Your task to perform on an android device: See recent photos Image 0: 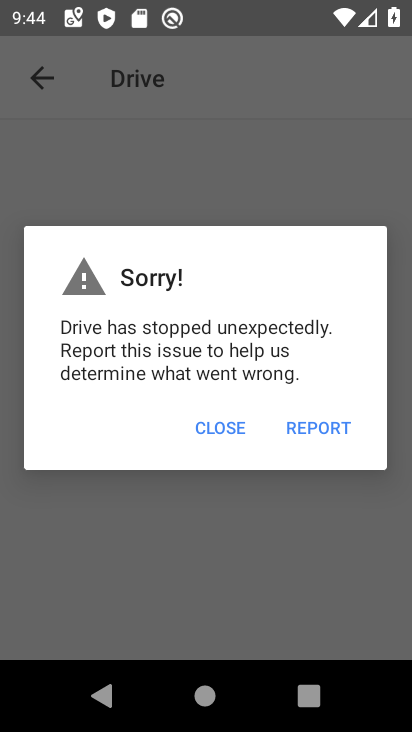
Step 0: press back button
Your task to perform on an android device: See recent photos Image 1: 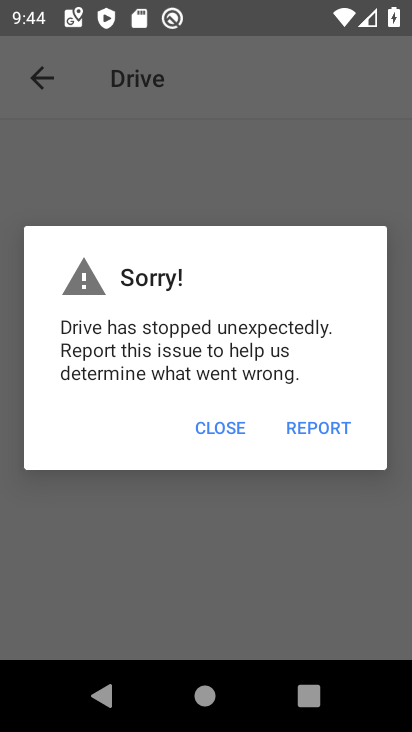
Step 1: press home button
Your task to perform on an android device: See recent photos Image 2: 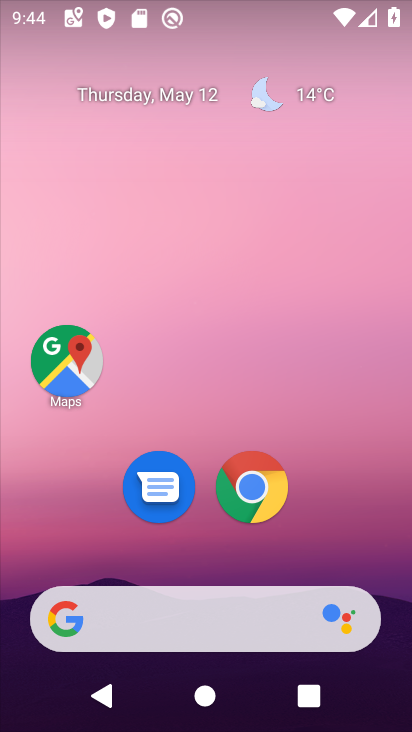
Step 2: drag from (38, 568) to (364, 79)
Your task to perform on an android device: See recent photos Image 3: 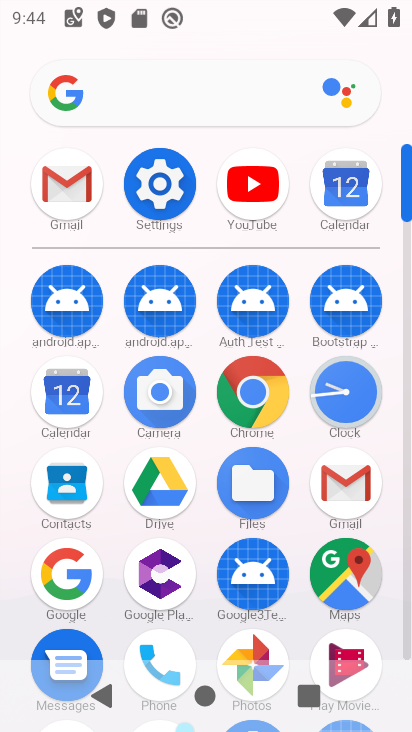
Step 3: click (246, 638)
Your task to perform on an android device: See recent photos Image 4: 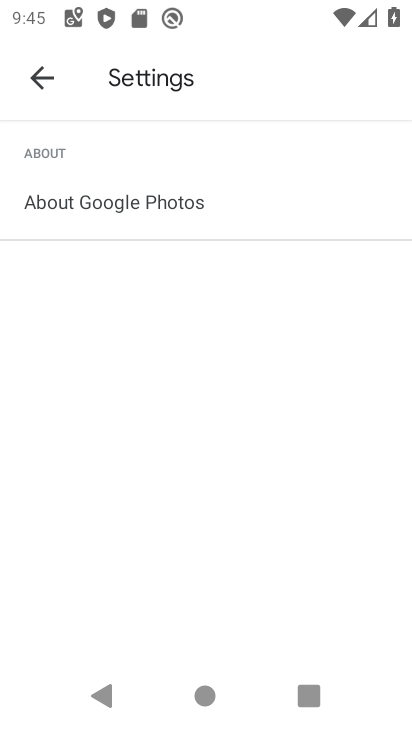
Step 4: task complete